Your task to perform on an android device: Go to Maps Image 0: 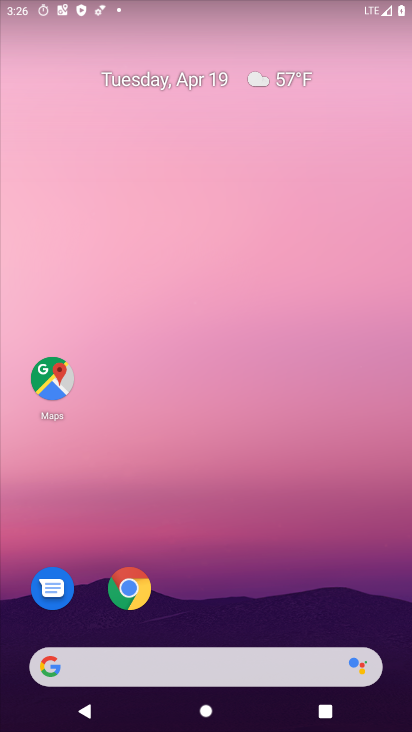
Step 0: drag from (201, 532) to (216, 281)
Your task to perform on an android device: Go to Maps Image 1: 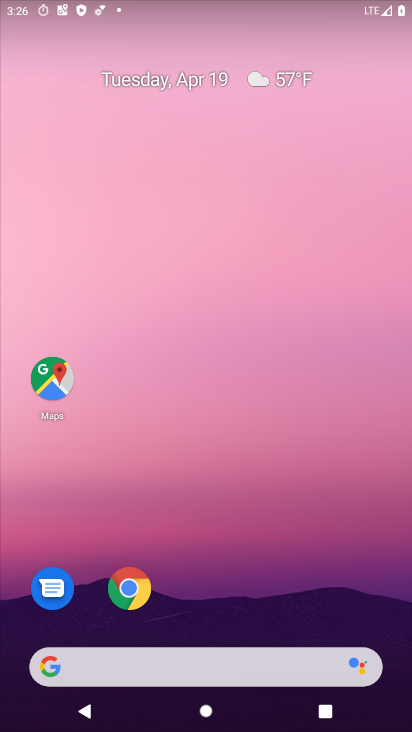
Step 1: drag from (211, 579) to (282, 74)
Your task to perform on an android device: Go to Maps Image 2: 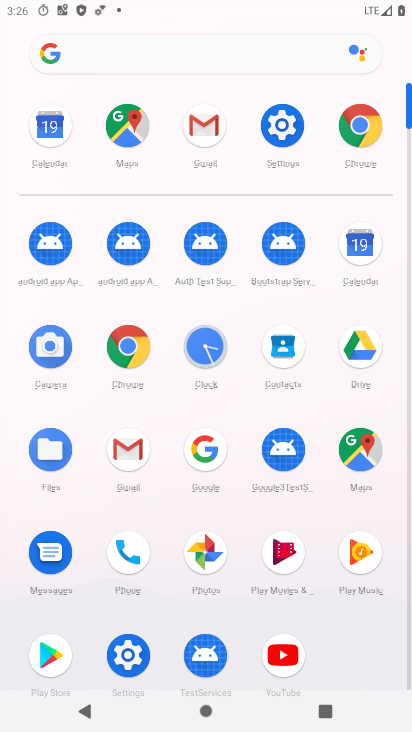
Step 2: click (366, 453)
Your task to perform on an android device: Go to Maps Image 3: 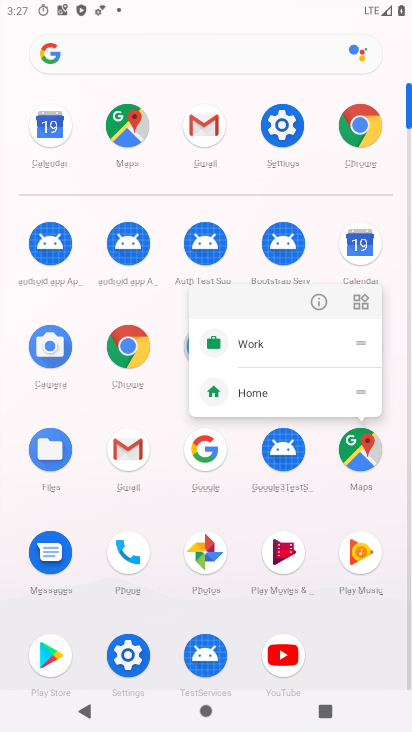
Step 3: click (316, 303)
Your task to perform on an android device: Go to Maps Image 4: 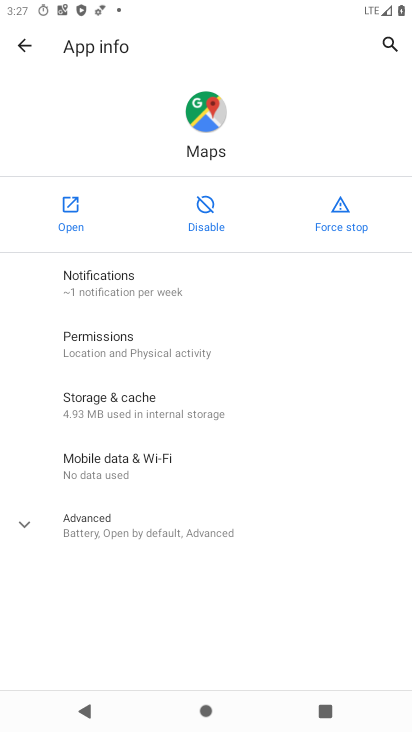
Step 4: click (70, 210)
Your task to perform on an android device: Go to Maps Image 5: 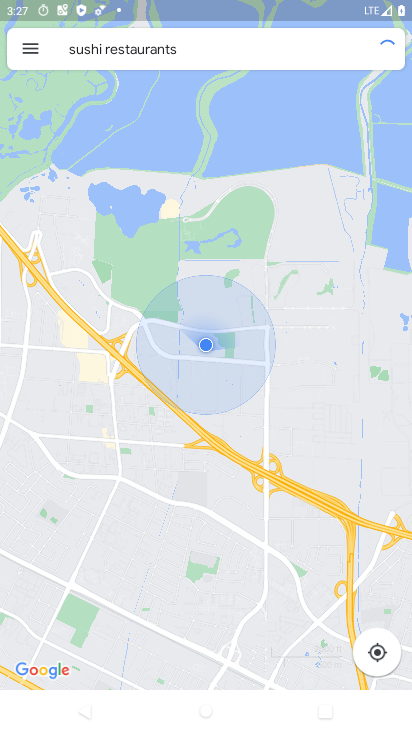
Step 5: task complete